Your task to perform on an android device: Open wifi settings Image 0: 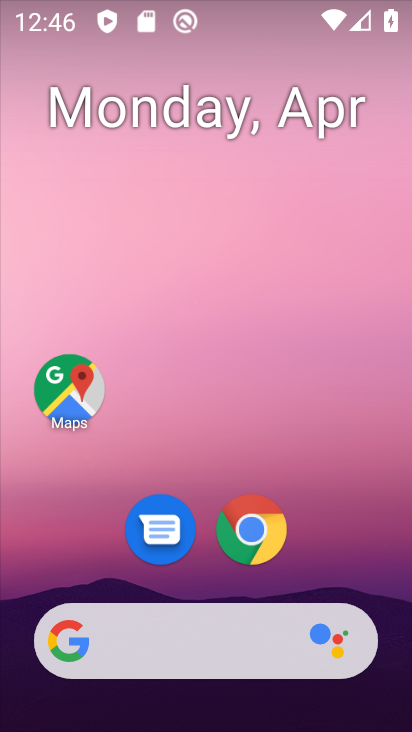
Step 0: drag from (199, 577) to (182, 239)
Your task to perform on an android device: Open wifi settings Image 1: 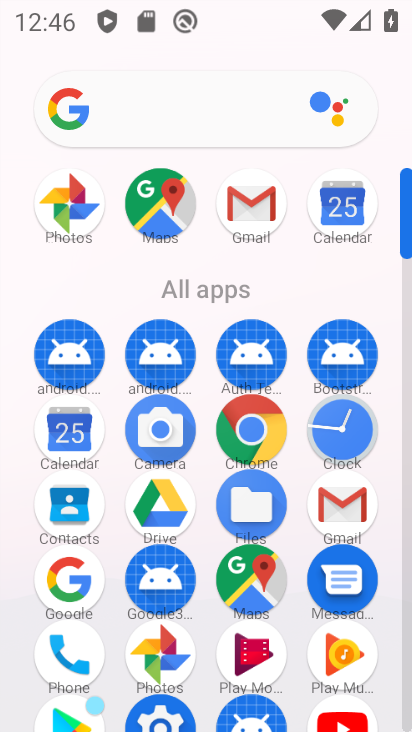
Step 1: click (152, 716)
Your task to perform on an android device: Open wifi settings Image 2: 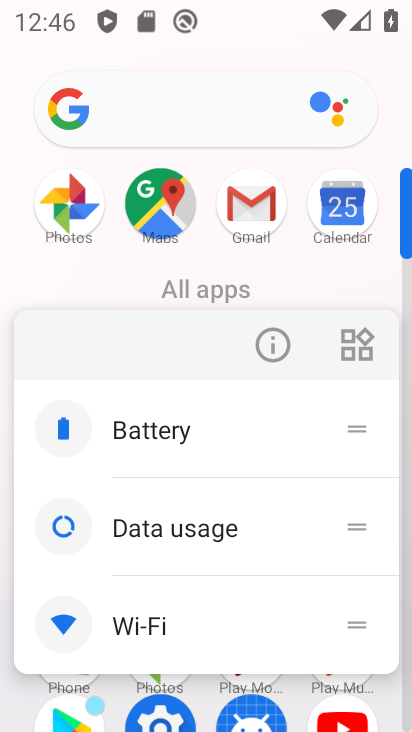
Step 2: click (275, 344)
Your task to perform on an android device: Open wifi settings Image 3: 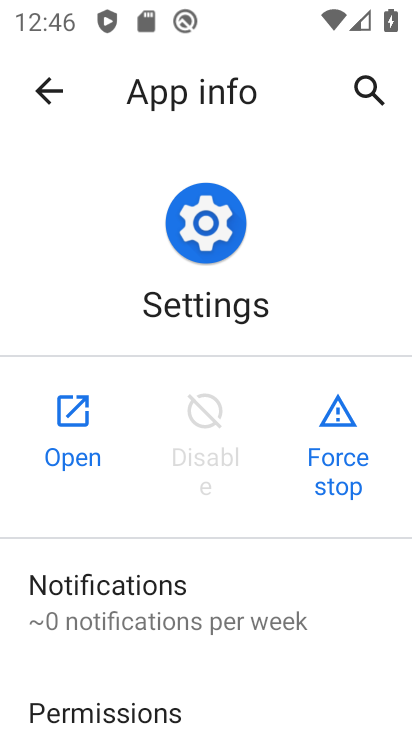
Step 3: click (71, 430)
Your task to perform on an android device: Open wifi settings Image 4: 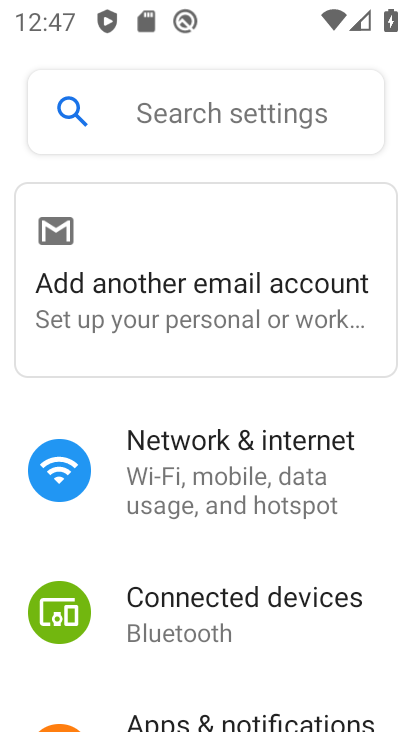
Step 4: click (240, 470)
Your task to perform on an android device: Open wifi settings Image 5: 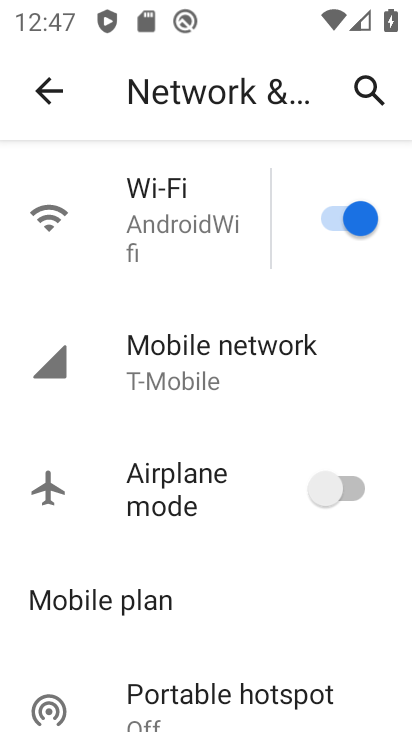
Step 5: task complete